Your task to perform on an android device: search for starred emails in the gmail app Image 0: 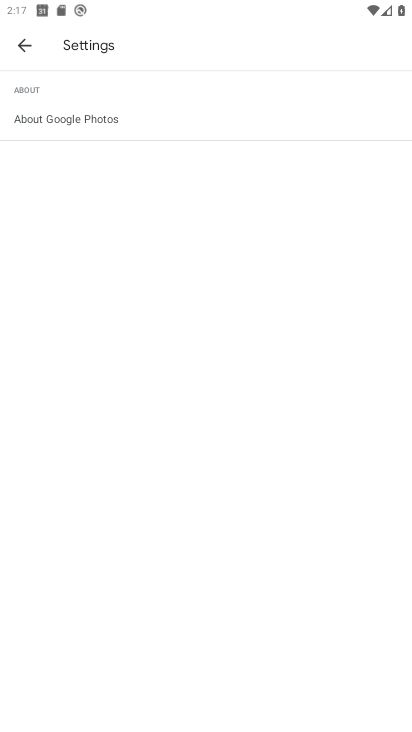
Step 0: press home button
Your task to perform on an android device: search for starred emails in the gmail app Image 1: 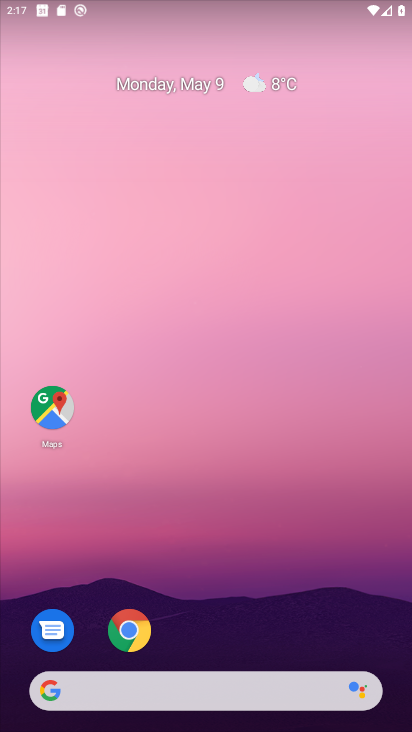
Step 1: drag from (293, 553) to (274, 137)
Your task to perform on an android device: search for starred emails in the gmail app Image 2: 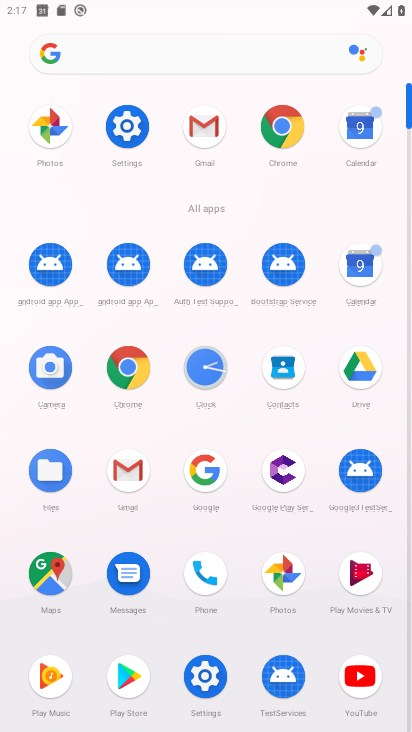
Step 2: click (124, 487)
Your task to perform on an android device: search for starred emails in the gmail app Image 3: 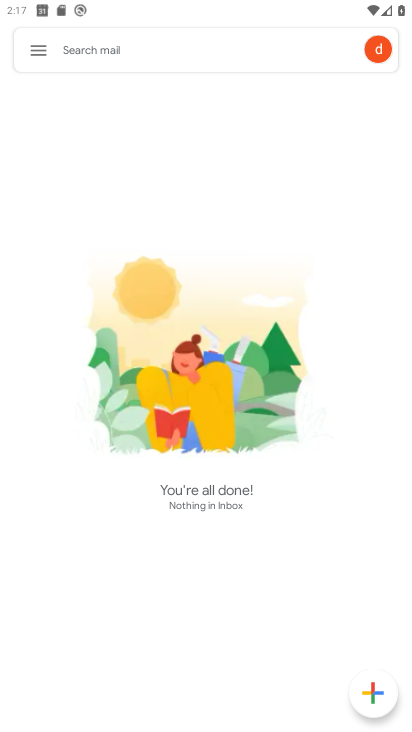
Step 3: click (51, 50)
Your task to perform on an android device: search for starred emails in the gmail app Image 4: 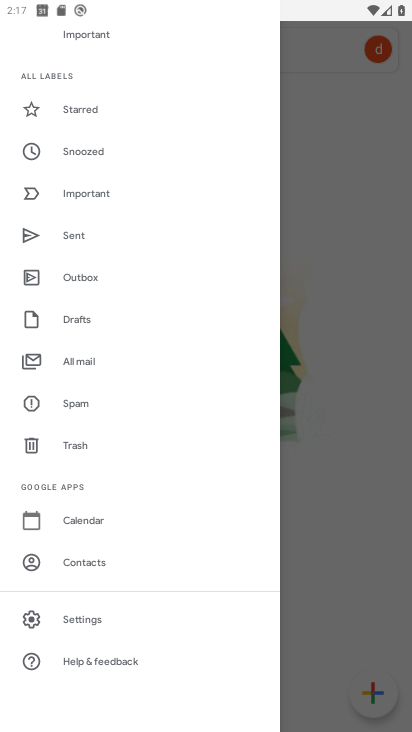
Step 4: click (87, 104)
Your task to perform on an android device: search for starred emails in the gmail app Image 5: 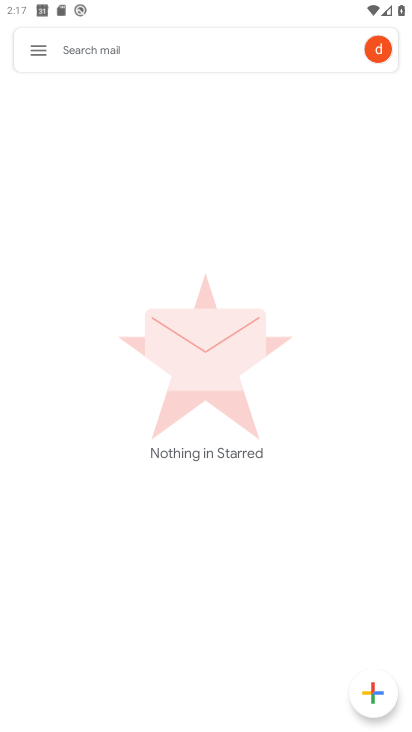
Step 5: task complete